Your task to perform on an android device: turn on wifi Image 0: 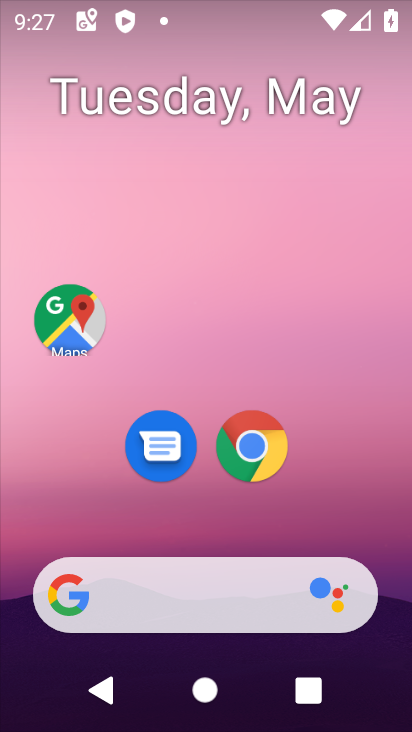
Step 0: drag from (213, 593) to (191, 117)
Your task to perform on an android device: turn on wifi Image 1: 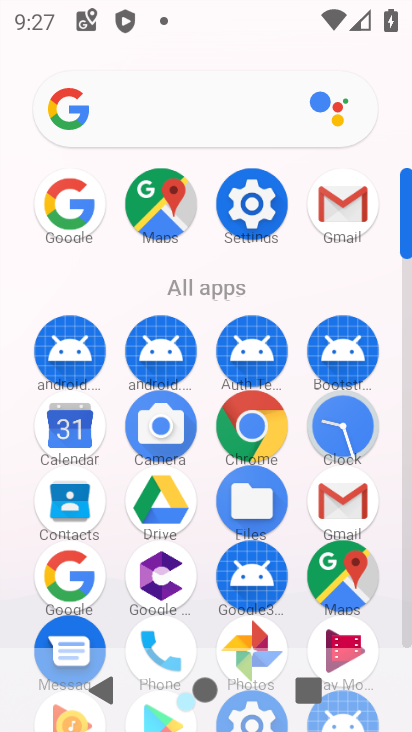
Step 1: click (242, 219)
Your task to perform on an android device: turn on wifi Image 2: 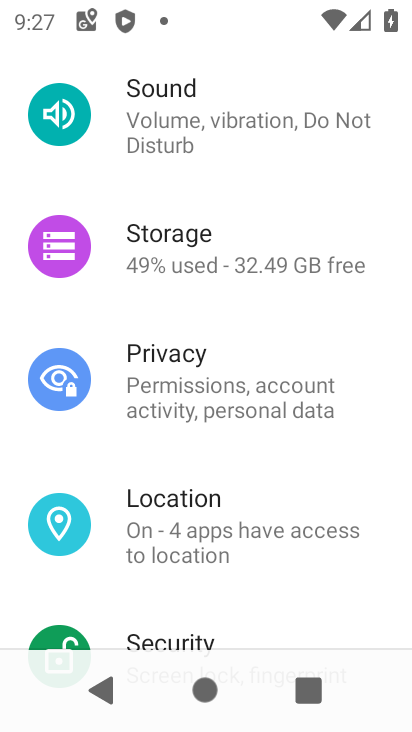
Step 2: drag from (171, 134) to (219, 573)
Your task to perform on an android device: turn on wifi Image 3: 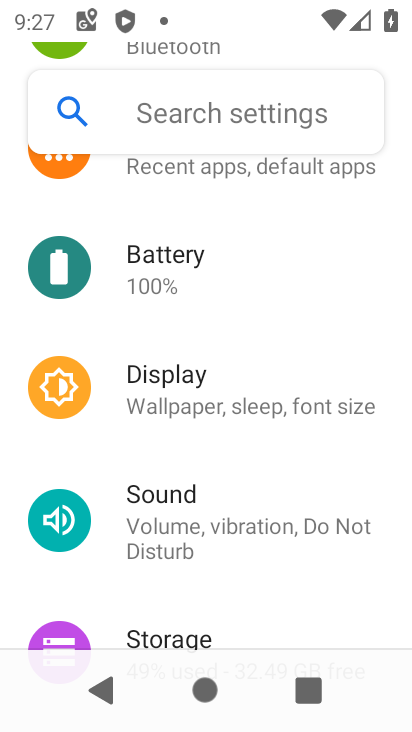
Step 3: drag from (223, 321) to (262, 654)
Your task to perform on an android device: turn on wifi Image 4: 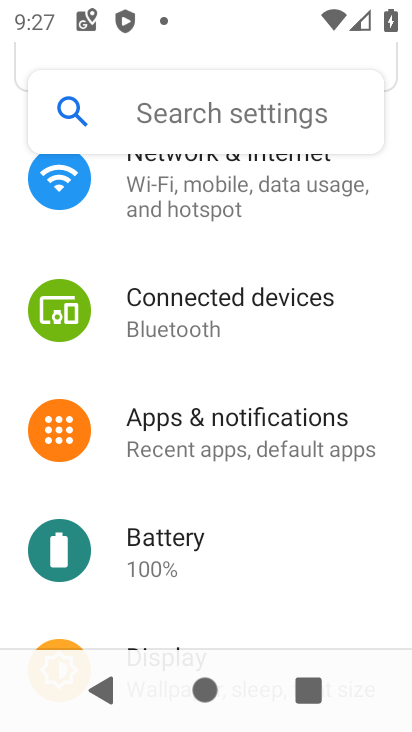
Step 4: drag from (233, 287) to (239, 671)
Your task to perform on an android device: turn on wifi Image 5: 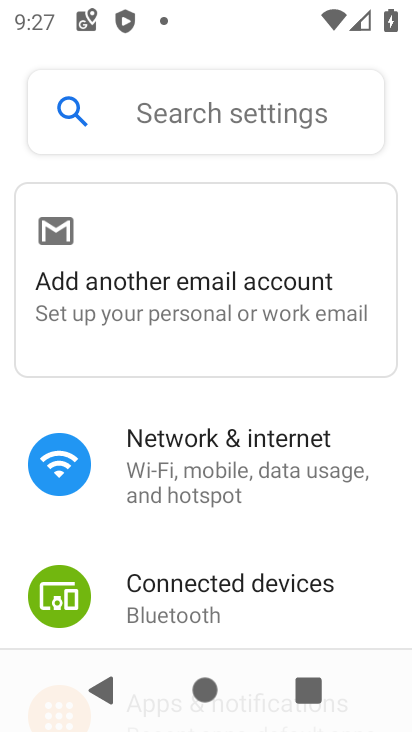
Step 5: click (195, 467)
Your task to perform on an android device: turn on wifi Image 6: 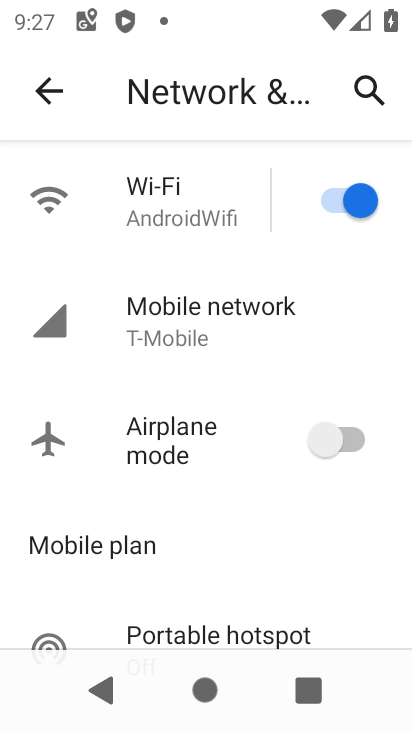
Step 6: task complete